Your task to perform on an android device: turn off airplane mode Image 0: 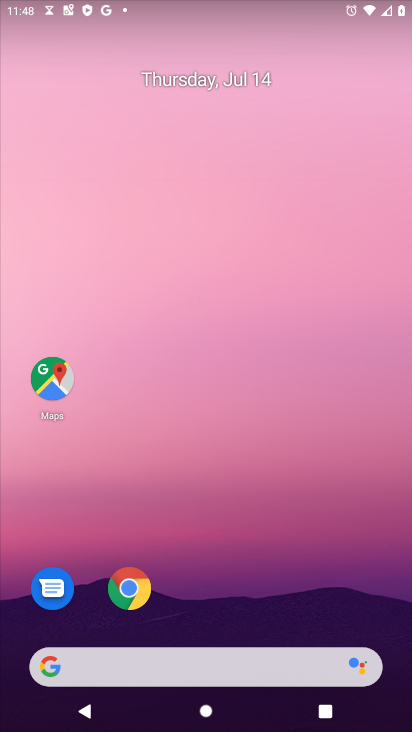
Step 0: press home button
Your task to perform on an android device: turn off airplane mode Image 1: 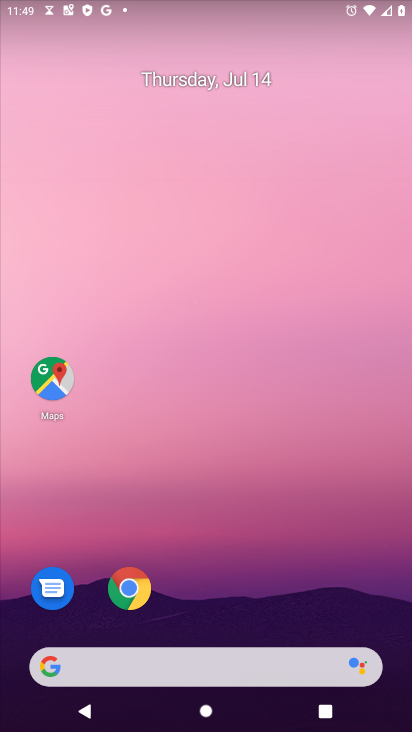
Step 1: drag from (136, 661) to (149, 115)
Your task to perform on an android device: turn off airplane mode Image 2: 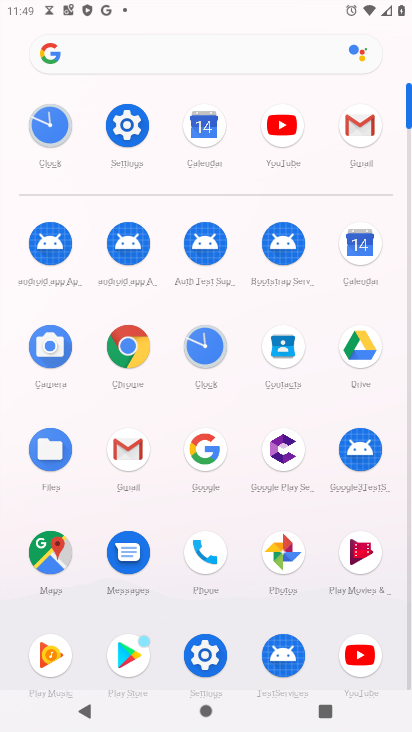
Step 2: click (131, 115)
Your task to perform on an android device: turn off airplane mode Image 3: 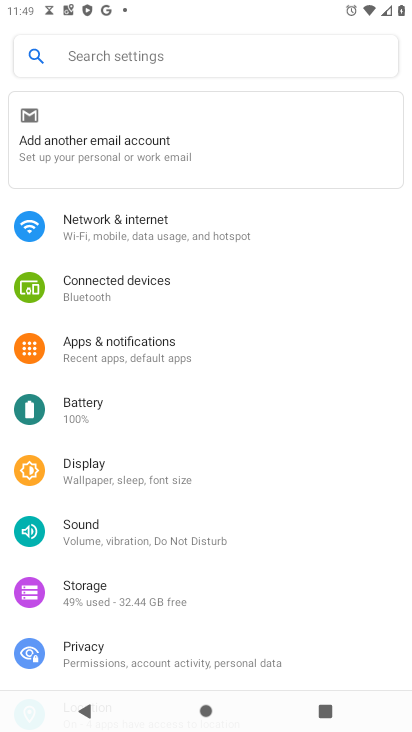
Step 3: click (132, 233)
Your task to perform on an android device: turn off airplane mode Image 4: 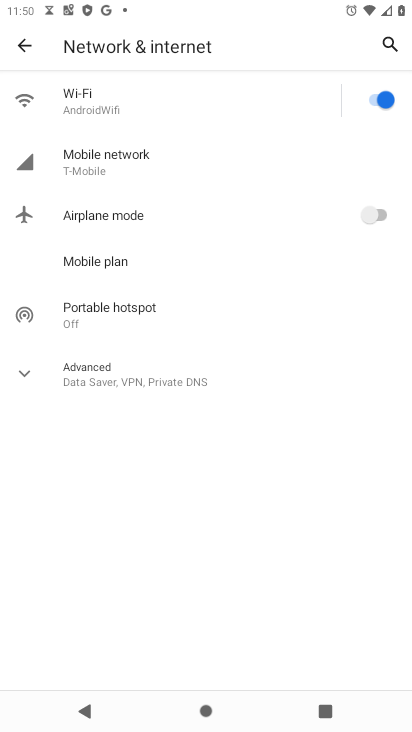
Step 4: task complete